Your task to perform on an android device: turn smart compose on in the gmail app Image 0: 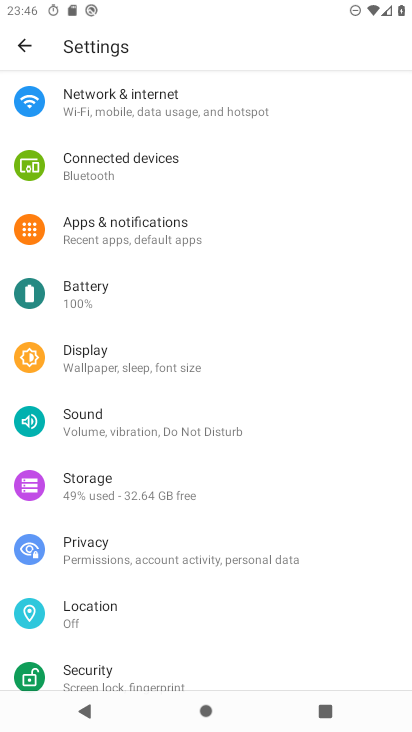
Step 0: press home button
Your task to perform on an android device: turn smart compose on in the gmail app Image 1: 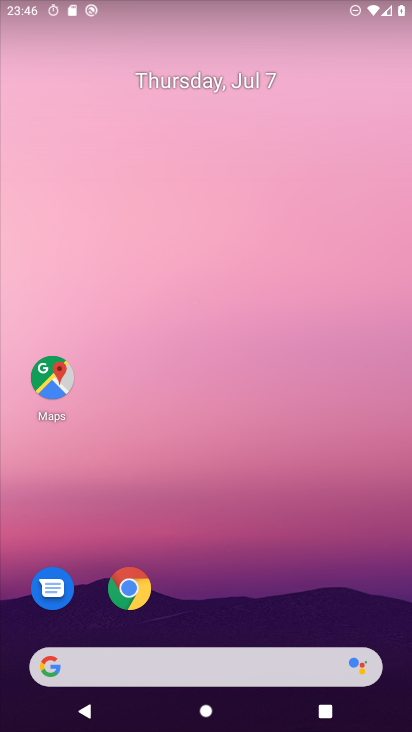
Step 1: drag from (303, 589) to (243, 149)
Your task to perform on an android device: turn smart compose on in the gmail app Image 2: 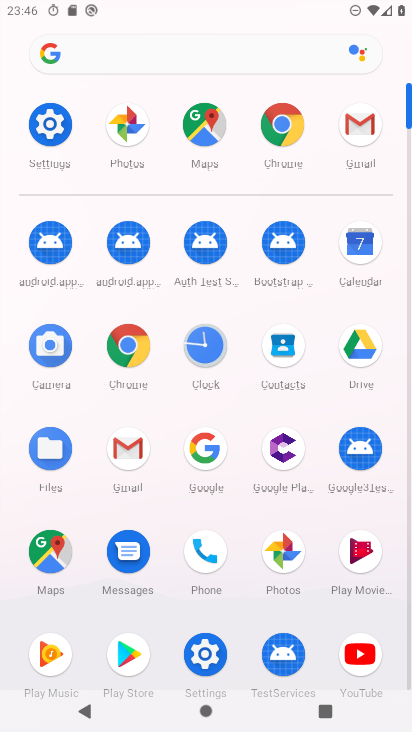
Step 2: click (354, 121)
Your task to perform on an android device: turn smart compose on in the gmail app Image 3: 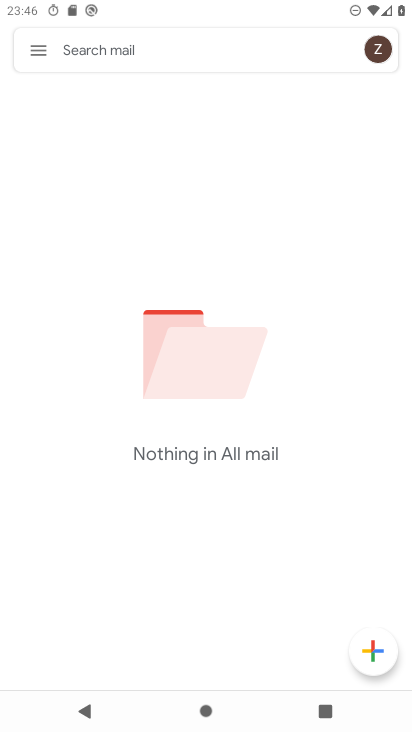
Step 3: click (43, 55)
Your task to perform on an android device: turn smart compose on in the gmail app Image 4: 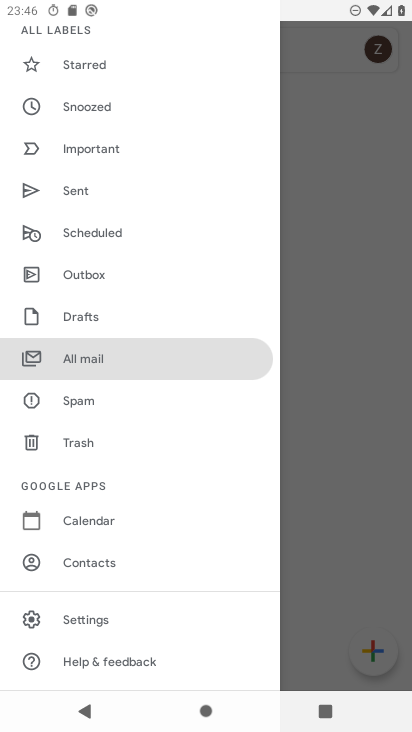
Step 4: click (101, 619)
Your task to perform on an android device: turn smart compose on in the gmail app Image 5: 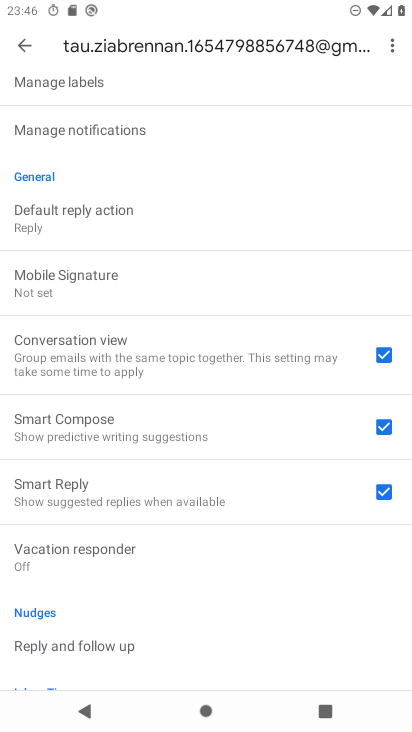
Step 5: task complete